Your task to perform on an android device: Show me recent news Image 0: 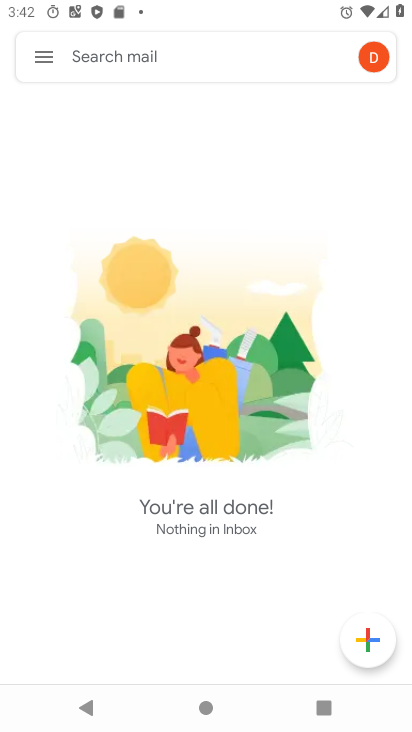
Step 0: press home button
Your task to perform on an android device: Show me recent news Image 1: 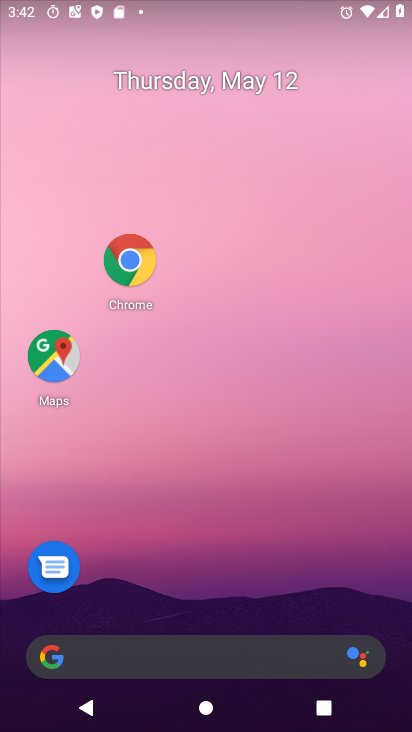
Step 1: drag from (144, 600) to (184, 274)
Your task to perform on an android device: Show me recent news Image 2: 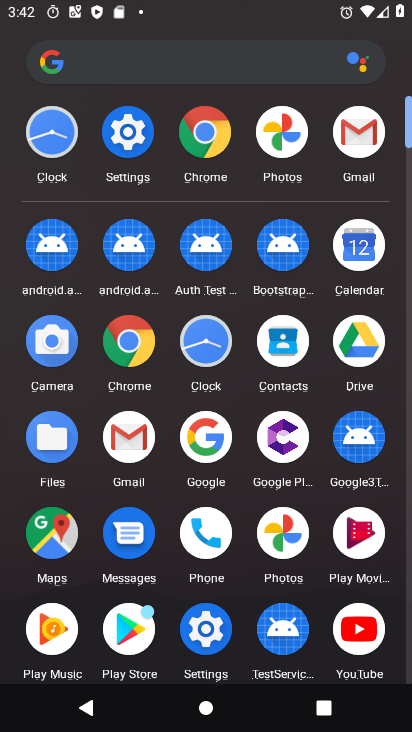
Step 2: click (200, 447)
Your task to perform on an android device: Show me recent news Image 3: 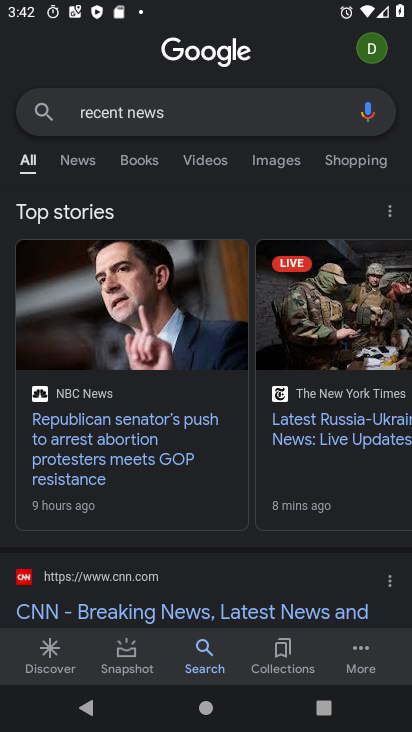
Step 3: task complete